Your task to perform on an android device: change the upload size in google photos Image 0: 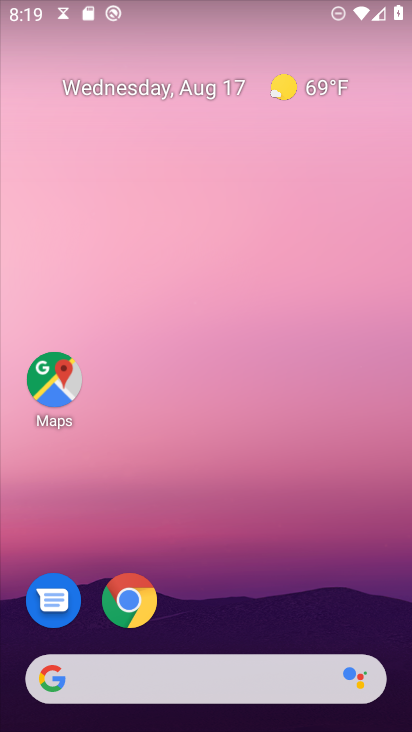
Step 0: press home button
Your task to perform on an android device: change the upload size in google photos Image 1: 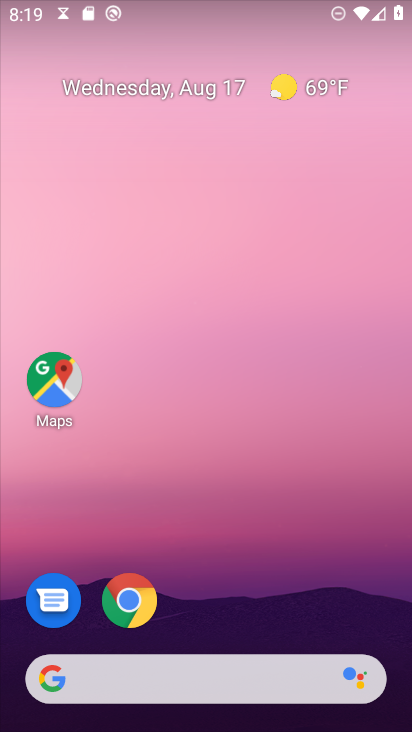
Step 1: drag from (267, 618) to (247, 122)
Your task to perform on an android device: change the upload size in google photos Image 2: 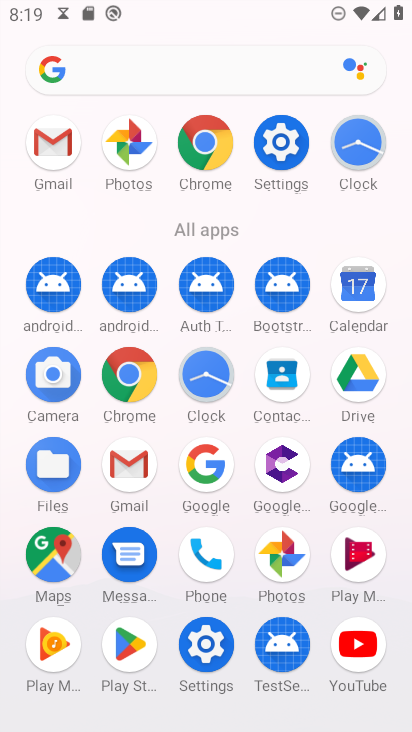
Step 2: click (268, 564)
Your task to perform on an android device: change the upload size in google photos Image 3: 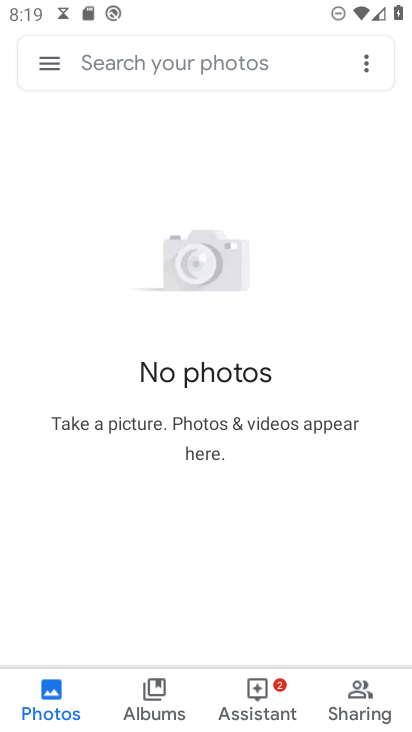
Step 3: click (46, 66)
Your task to perform on an android device: change the upload size in google photos Image 4: 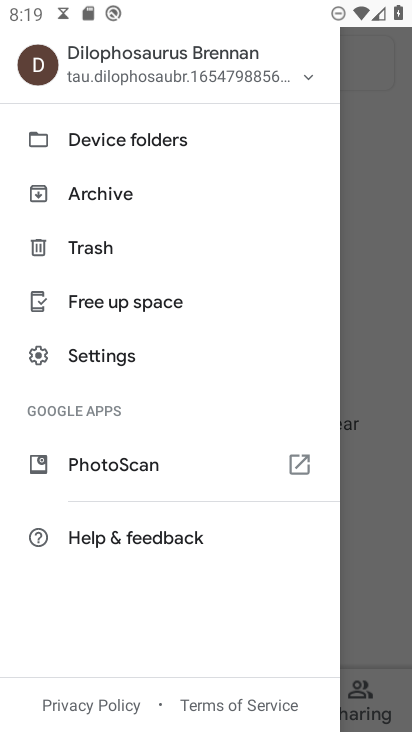
Step 4: click (95, 355)
Your task to perform on an android device: change the upload size in google photos Image 5: 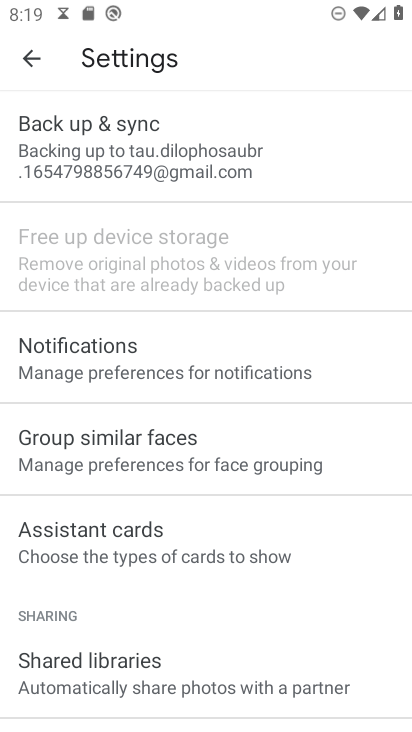
Step 5: click (130, 152)
Your task to perform on an android device: change the upload size in google photos Image 6: 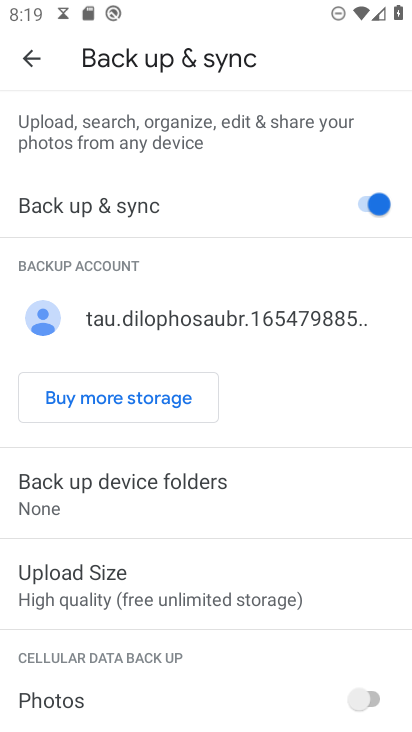
Step 6: click (201, 601)
Your task to perform on an android device: change the upload size in google photos Image 7: 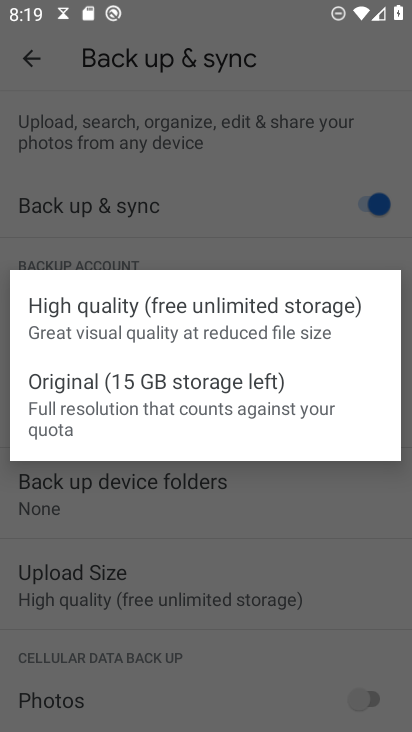
Step 7: click (134, 386)
Your task to perform on an android device: change the upload size in google photos Image 8: 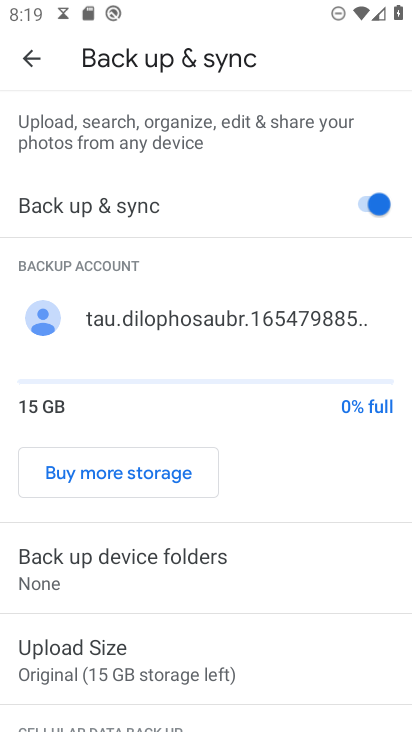
Step 8: task complete